Your task to perform on an android device: toggle sleep mode Image 0: 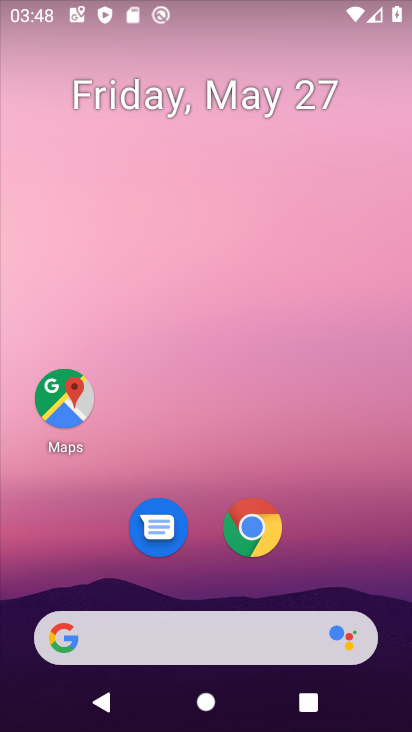
Step 0: drag from (345, 522) to (297, 51)
Your task to perform on an android device: toggle sleep mode Image 1: 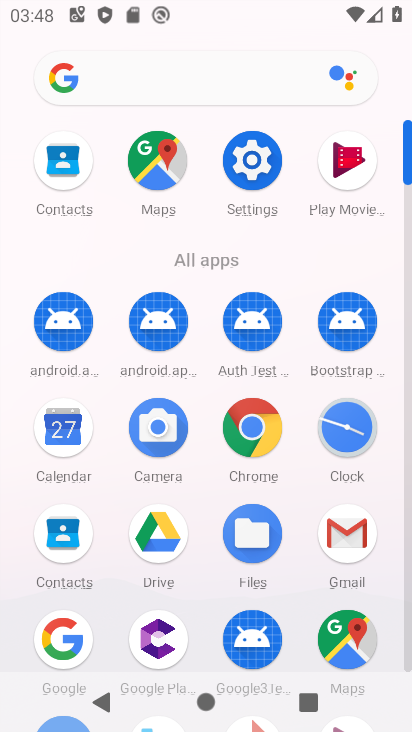
Step 1: click (266, 168)
Your task to perform on an android device: toggle sleep mode Image 2: 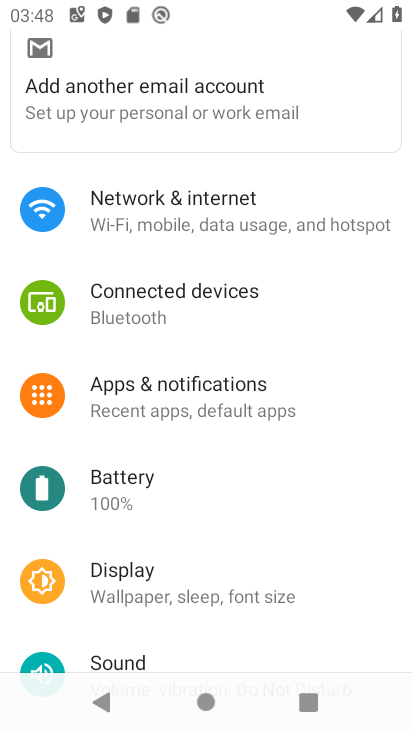
Step 2: click (266, 168)
Your task to perform on an android device: toggle sleep mode Image 3: 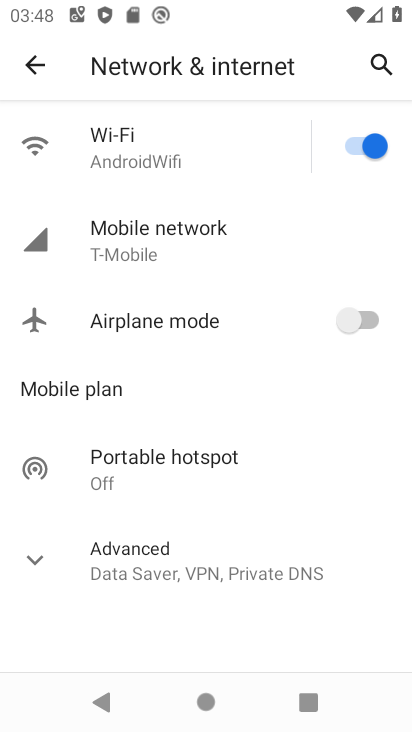
Step 3: click (36, 71)
Your task to perform on an android device: toggle sleep mode Image 4: 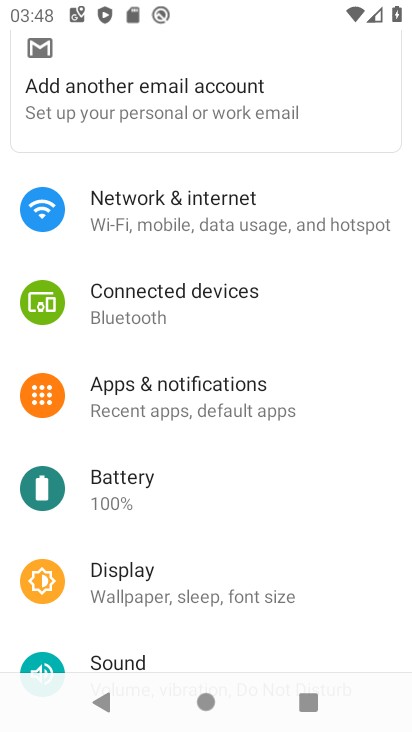
Step 4: click (105, 577)
Your task to perform on an android device: toggle sleep mode Image 5: 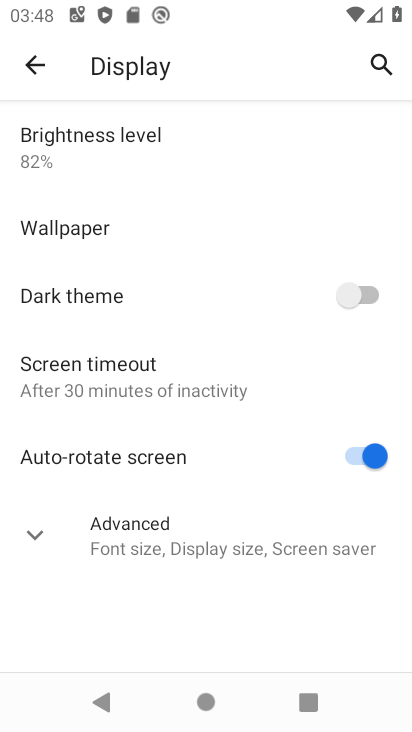
Step 5: task complete